Your task to perform on an android device: Go to privacy settings Image 0: 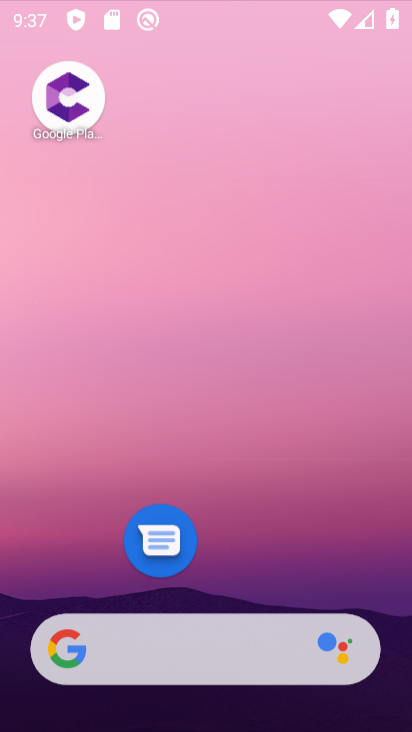
Step 0: press home button
Your task to perform on an android device: Go to privacy settings Image 1: 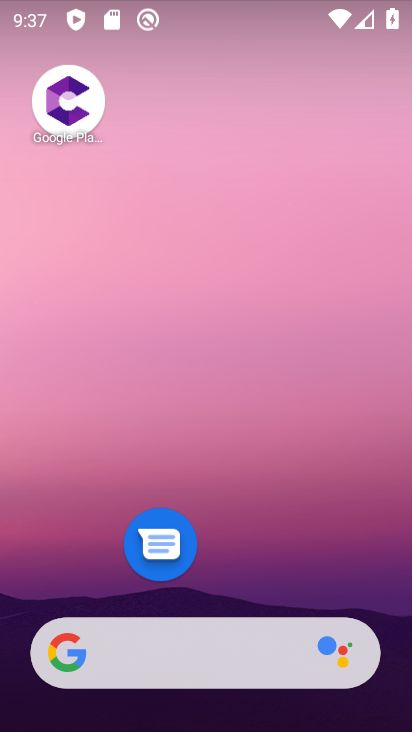
Step 1: drag from (33, 354) to (409, 406)
Your task to perform on an android device: Go to privacy settings Image 2: 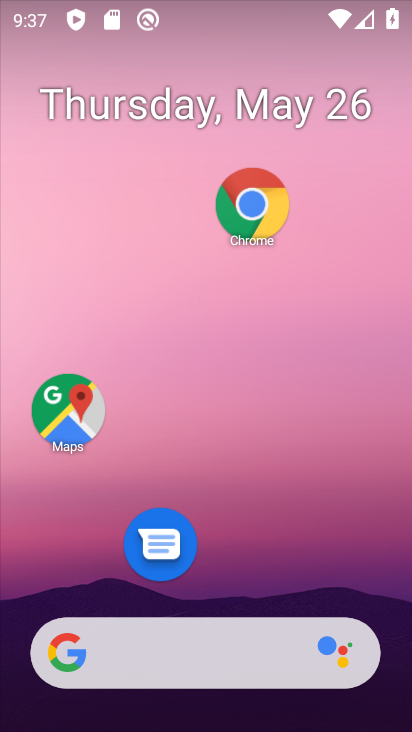
Step 2: drag from (225, 605) to (254, 46)
Your task to perform on an android device: Go to privacy settings Image 3: 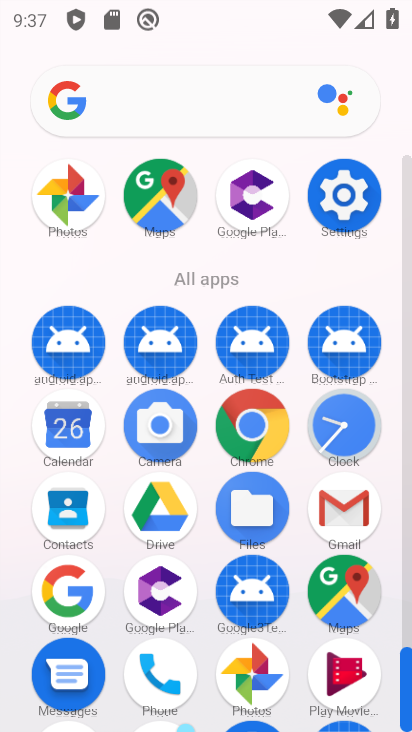
Step 3: click (343, 188)
Your task to perform on an android device: Go to privacy settings Image 4: 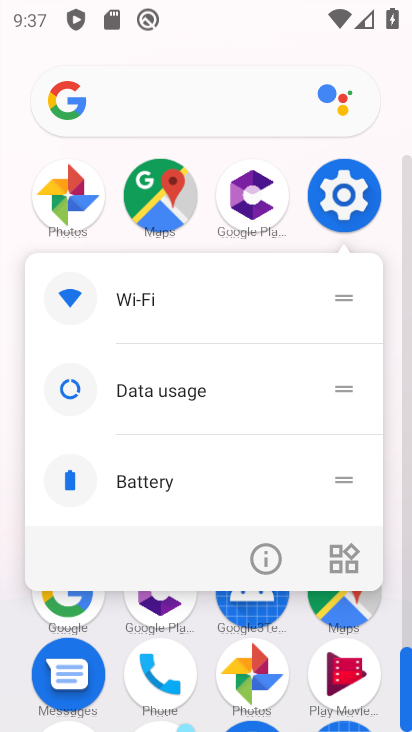
Step 4: click (342, 187)
Your task to perform on an android device: Go to privacy settings Image 5: 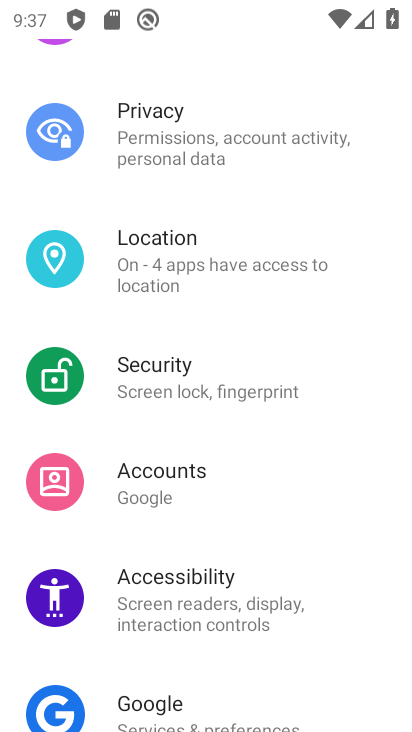
Step 5: click (222, 121)
Your task to perform on an android device: Go to privacy settings Image 6: 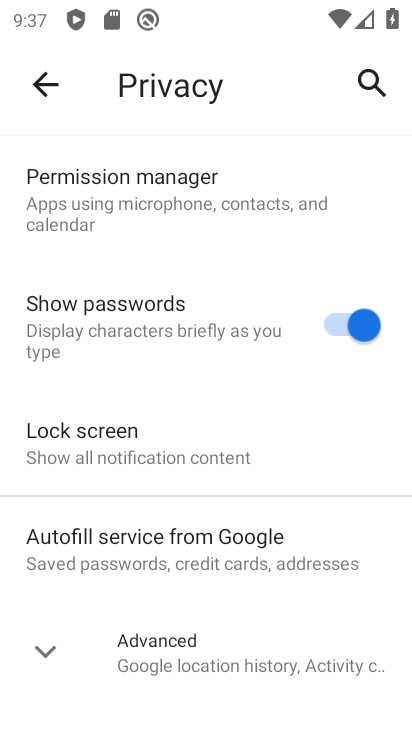
Step 6: click (42, 639)
Your task to perform on an android device: Go to privacy settings Image 7: 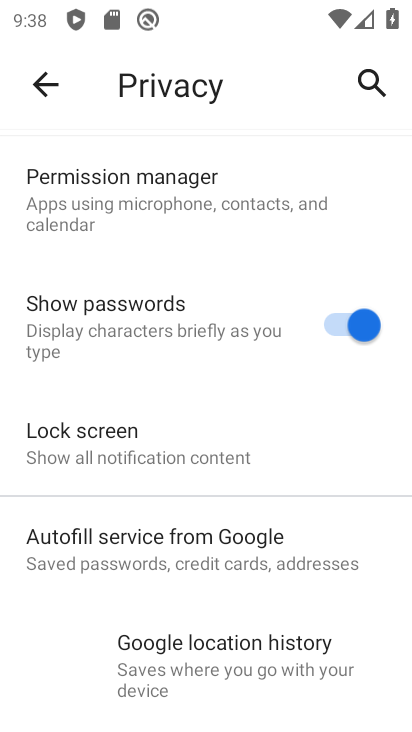
Step 7: task complete